Your task to perform on an android device: open app "ZOOM Cloud Meetings" (install if not already installed) Image 0: 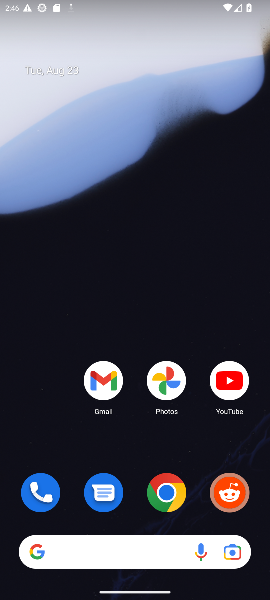
Step 0: drag from (136, 528) to (157, 2)
Your task to perform on an android device: open app "ZOOM Cloud Meetings" (install if not already installed) Image 1: 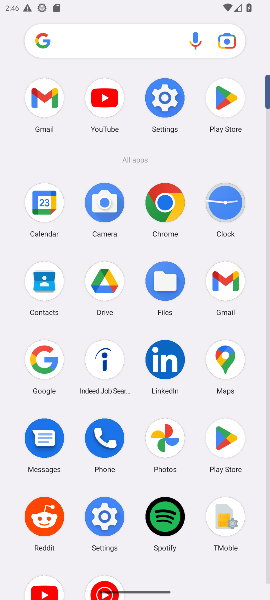
Step 1: click (212, 107)
Your task to perform on an android device: open app "ZOOM Cloud Meetings" (install if not already installed) Image 2: 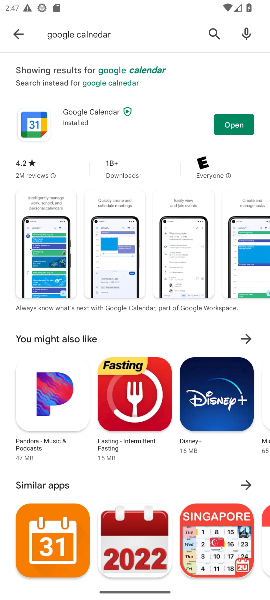
Step 2: click (213, 29)
Your task to perform on an android device: open app "ZOOM Cloud Meetings" (install if not already installed) Image 3: 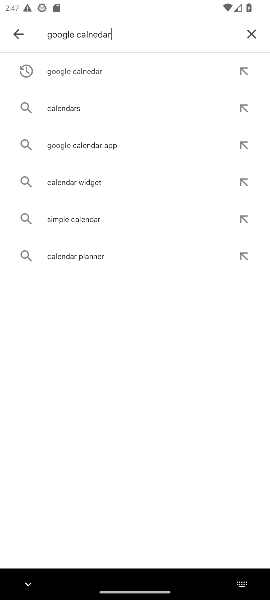
Step 3: click (240, 36)
Your task to perform on an android device: open app "ZOOM Cloud Meetings" (install if not already installed) Image 4: 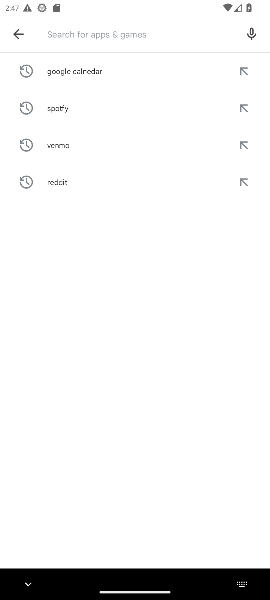
Step 4: type "zoom cloud"
Your task to perform on an android device: open app "ZOOM Cloud Meetings" (install if not already installed) Image 5: 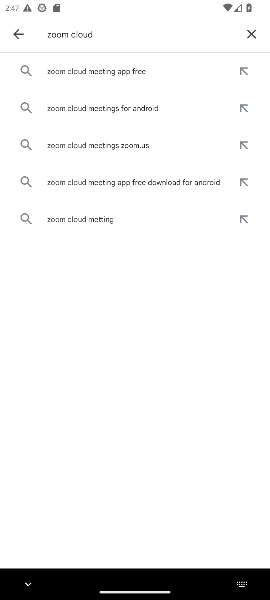
Step 5: click (75, 72)
Your task to perform on an android device: open app "ZOOM Cloud Meetings" (install if not already installed) Image 6: 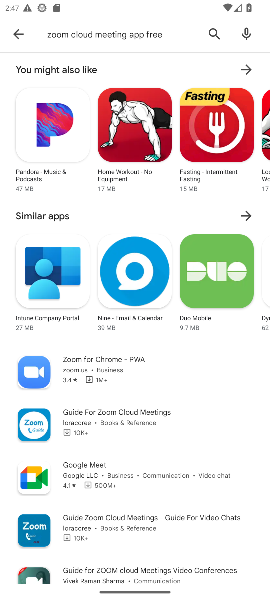
Step 6: task complete